Your task to perform on an android device: change timer sound Image 0: 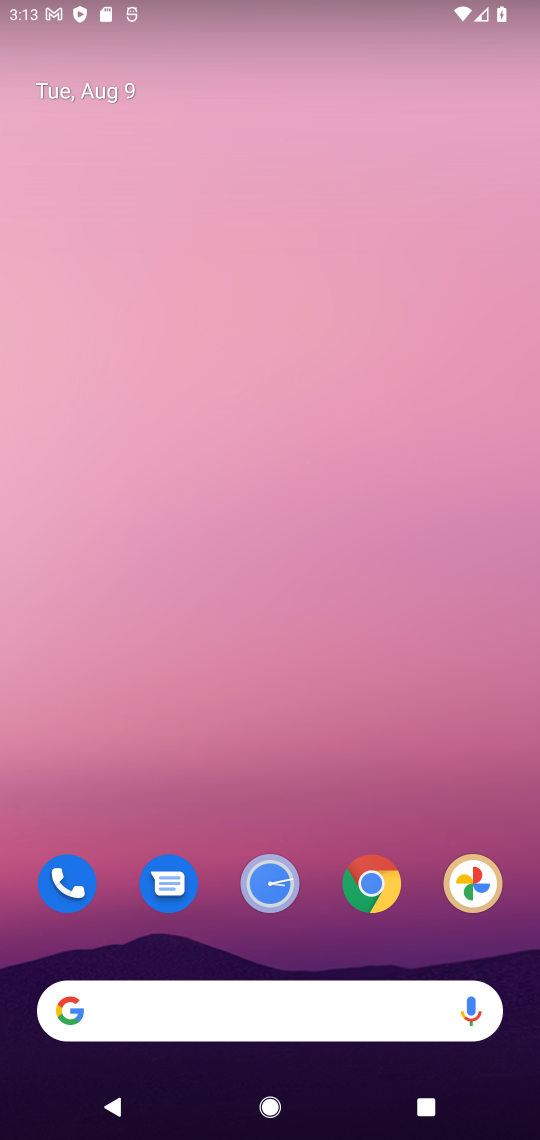
Step 0: drag from (380, 1040) to (310, 298)
Your task to perform on an android device: change timer sound Image 1: 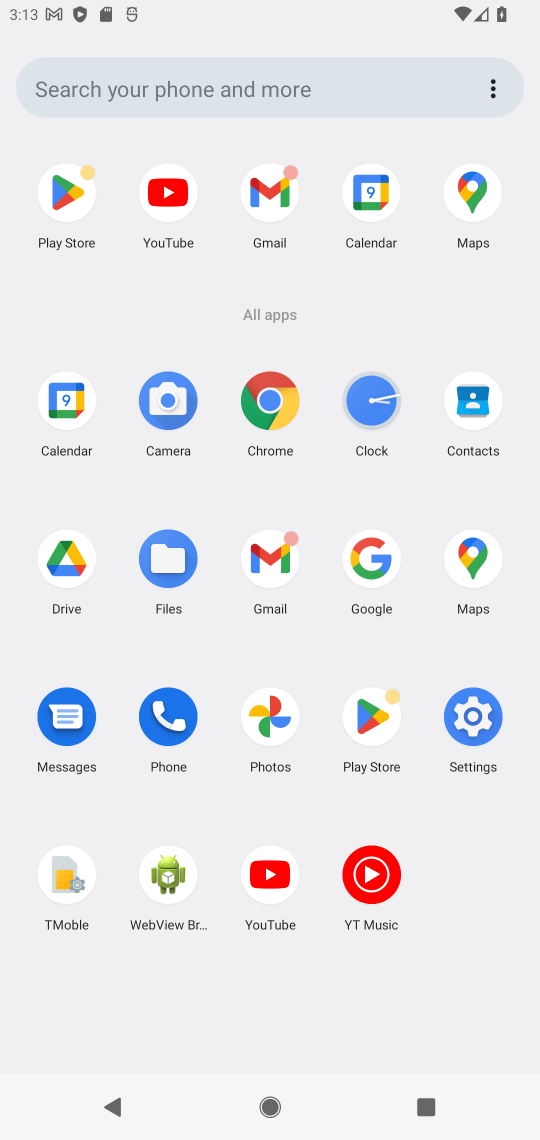
Step 1: click (362, 407)
Your task to perform on an android device: change timer sound Image 2: 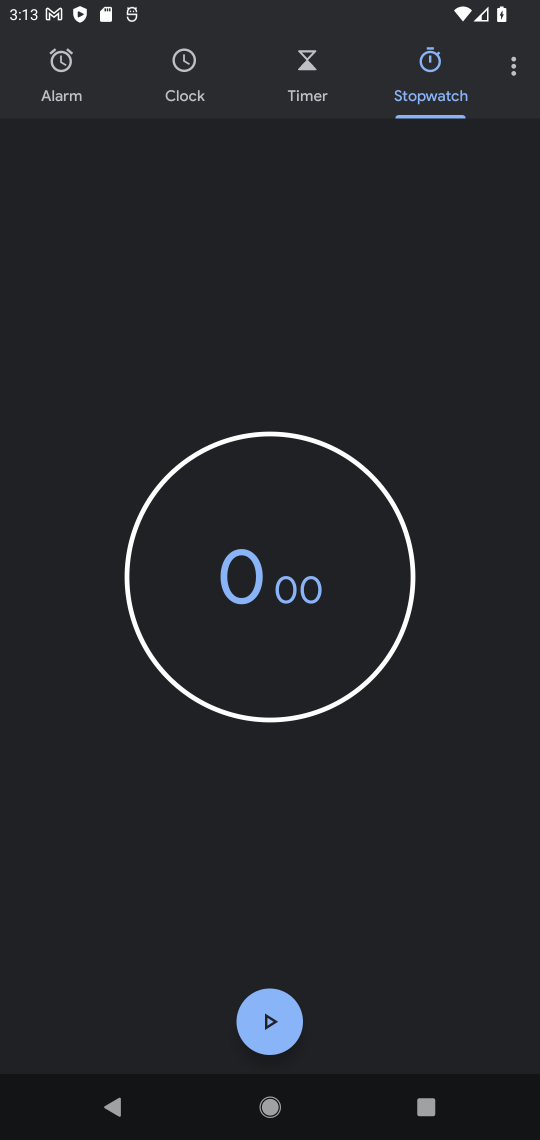
Step 2: click (504, 71)
Your task to perform on an android device: change timer sound Image 3: 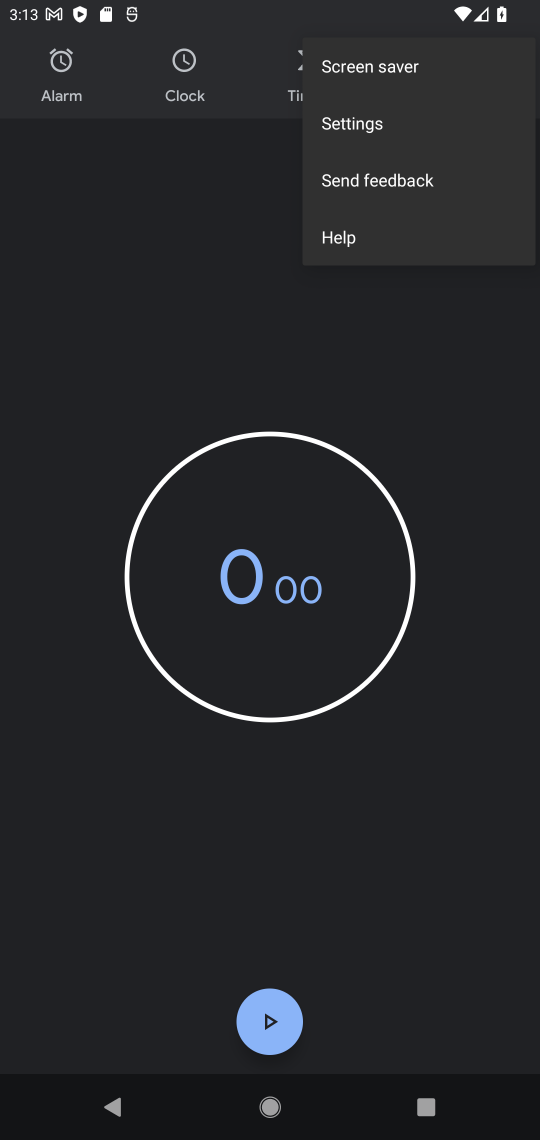
Step 3: click (377, 126)
Your task to perform on an android device: change timer sound Image 4: 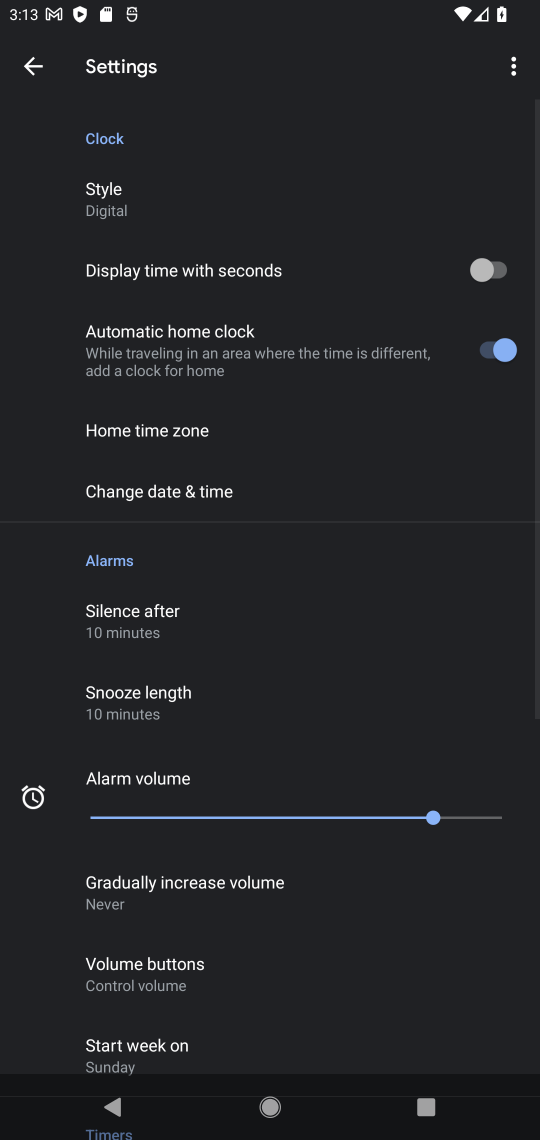
Step 4: drag from (306, 921) to (339, 522)
Your task to perform on an android device: change timer sound Image 5: 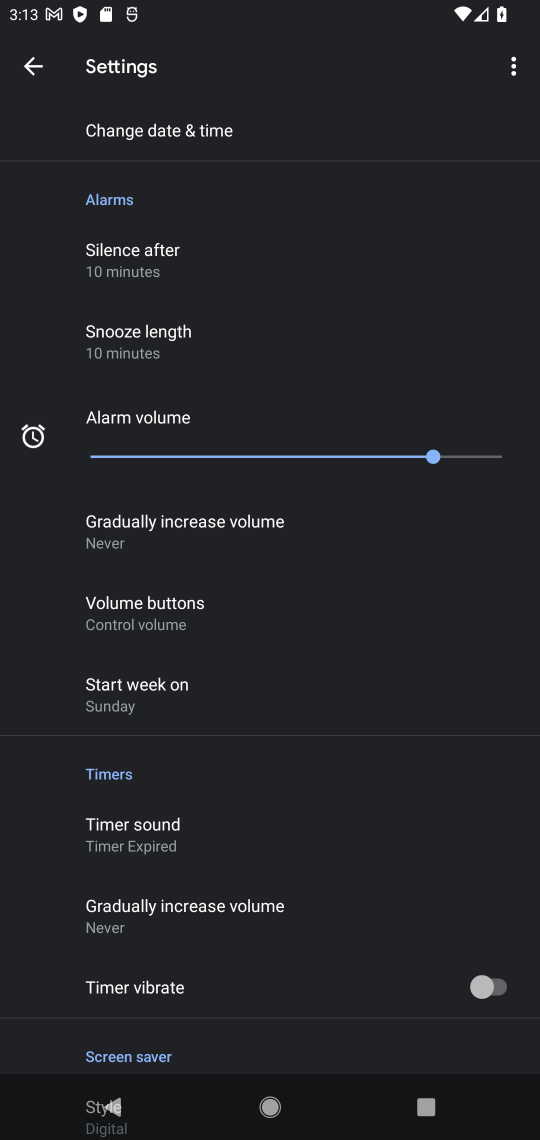
Step 5: drag from (192, 982) to (222, 833)
Your task to perform on an android device: change timer sound Image 6: 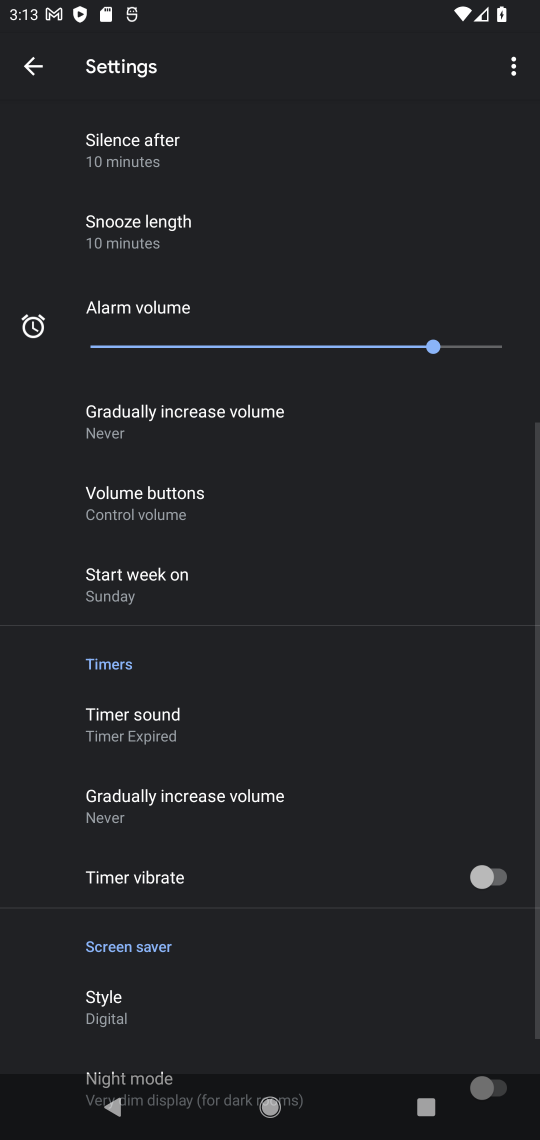
Step 6: click (199, 728)
Your task to perform on an android device: change timer sound Image 7: 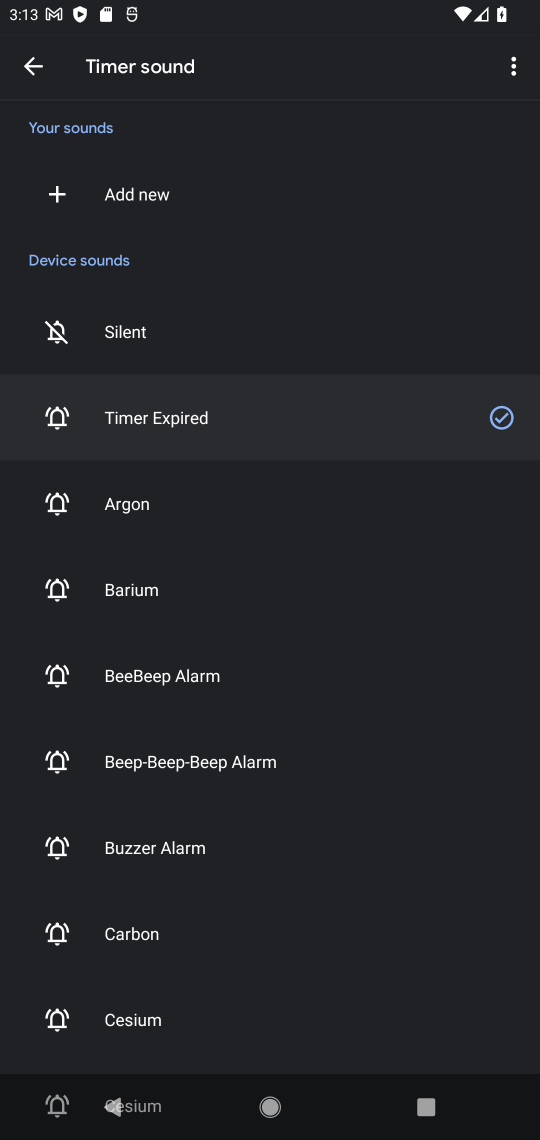
Step 7: click (175, 941)
Your task to perform on an android device: change timer sound Image 8: 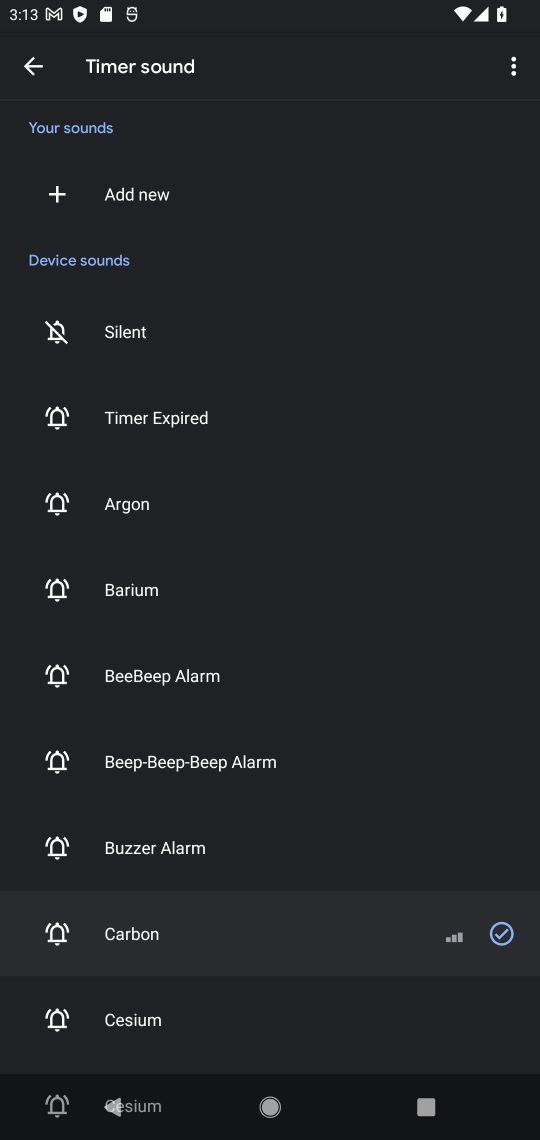
Step 8: task complete